Your task to perform on an android device: Search for vegetarian restaurants on Maps Image 0: 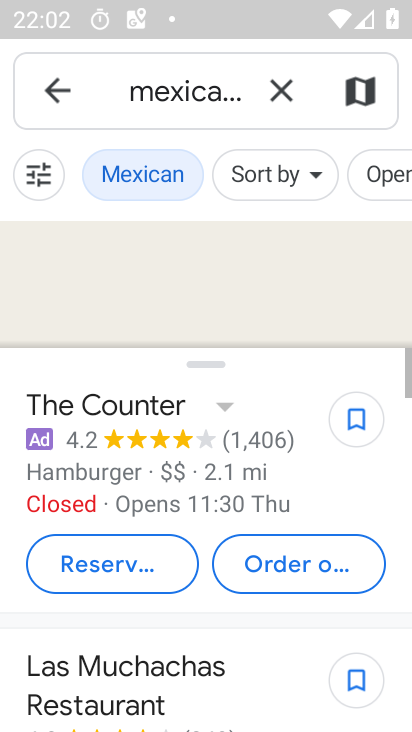
Step 0: press home button
Your task to perform on an android device: Search for vegetarian restaurants on Maps Image 1: 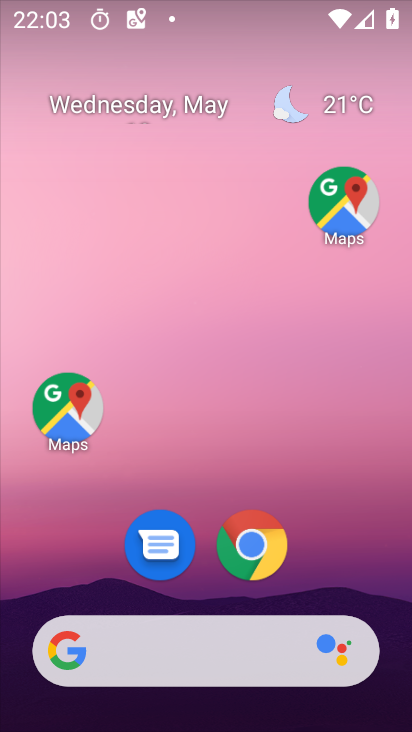
Step 1: click (63, 416)
Your task to perform on an android device: Search for vegetarian restaurants on Maps Image 2: 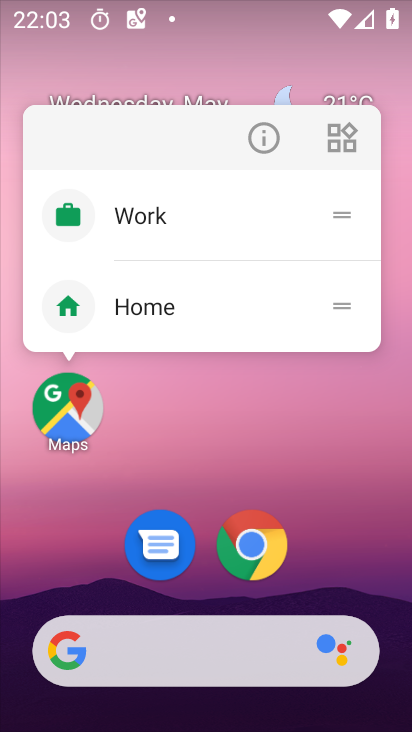
Step 2: click (57, 418)
Your task to perform on an android device: Search for vegetarian restaurants on Maps Image 3: 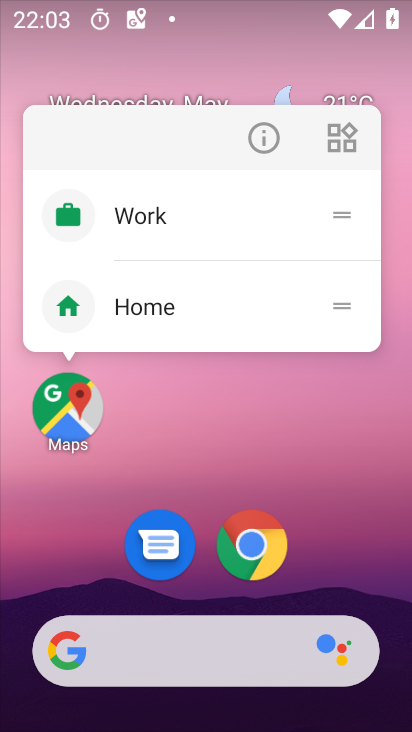
Step 3: click (62, 410)
Your task to perform on an android device: Search for vegetarian restaurants on Maps Image 4: 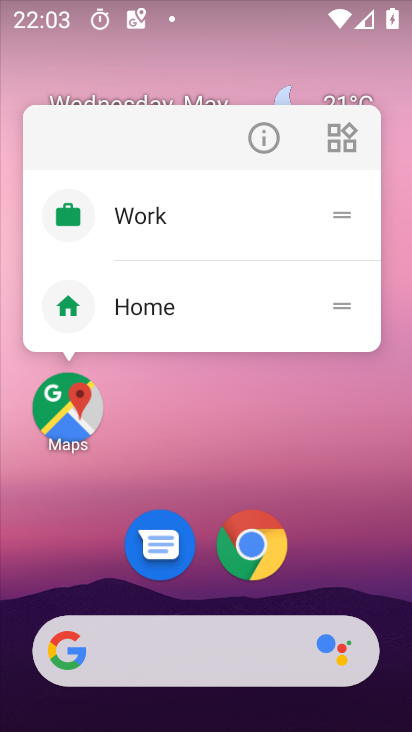
Step 4: click (64, 408)
Your task to perform on an android device: Search for vegetarian restaurants on Maps Image 5: 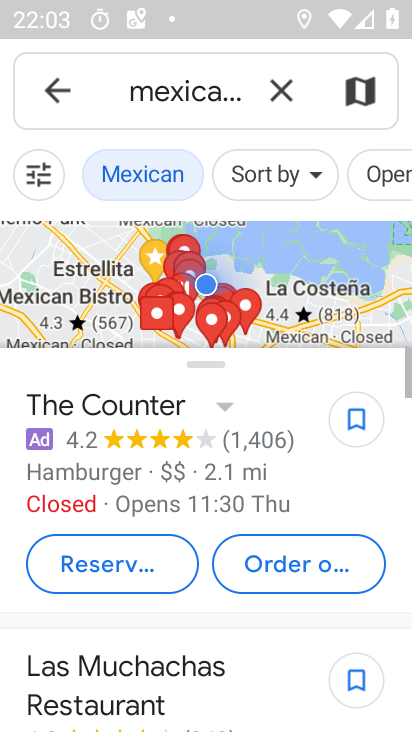
Step 5: click (286, 83)
Your task to perform on an android device: Search for vegetarian restaurants on Maps Image 6: 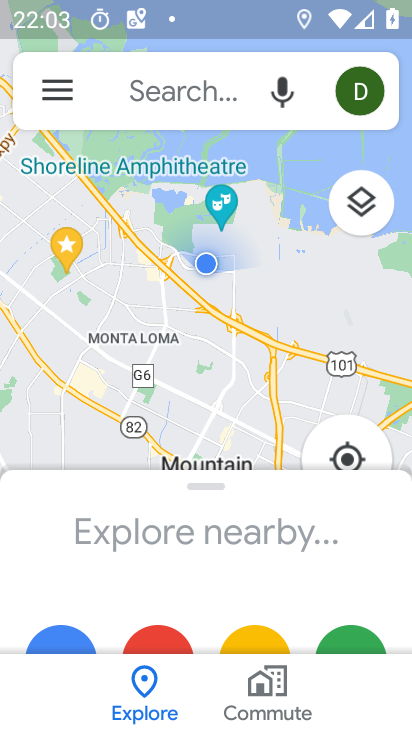
Step 6: click (198, 88)
Your task to perform on an android device: Search for vegetarian restaurants on Maps Image 7: 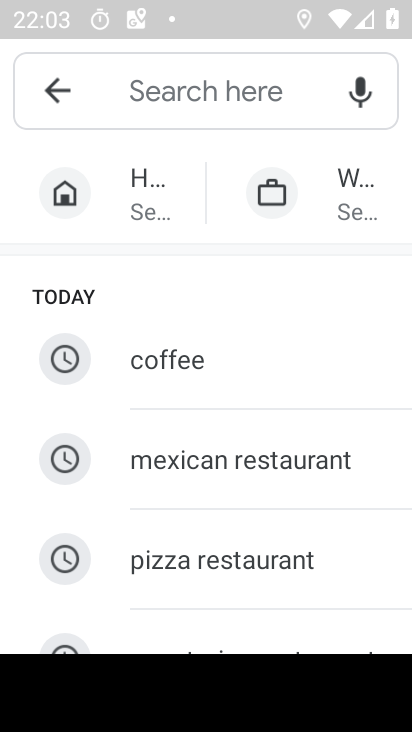
Step 7: type "vegetarian restaurants"
Your task to perform on an android device: Search for vegetarian restaurants on Maps Image 8: 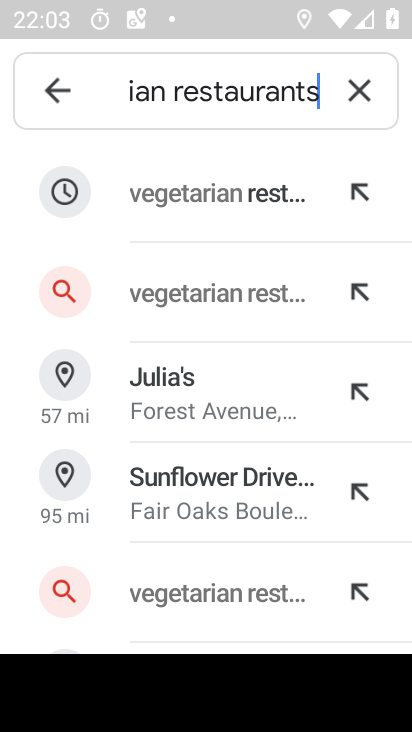
Step 8: click (205, 189)
Your task to perform on an android device: Search for vegetarian restaurants on Maps Image 9: 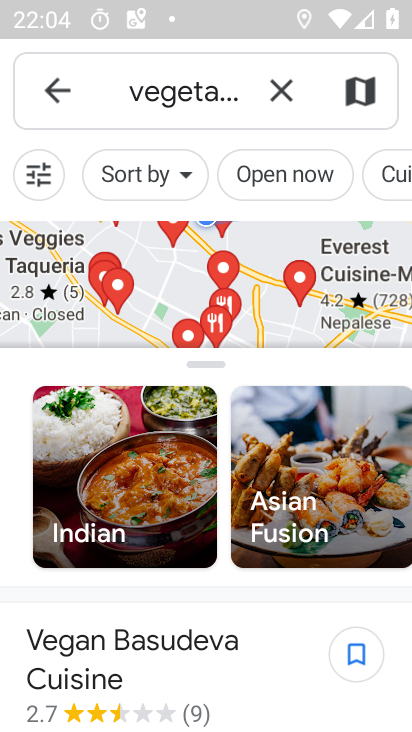
Step 9: task complete